Your task to perform on an android device: change timer sound Image 0: 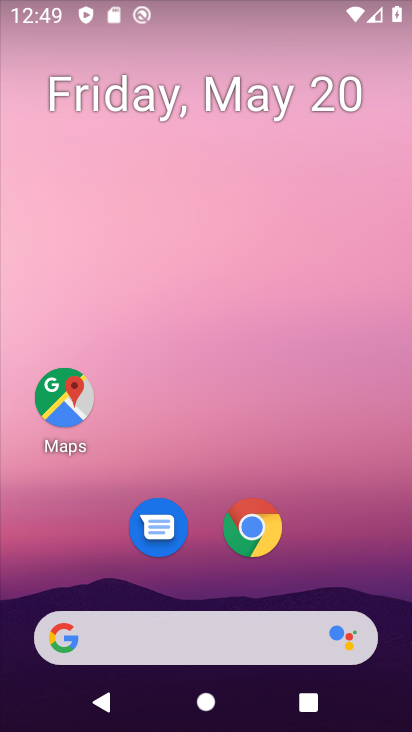
Step 0: drag from (213, 631) to (257, 214)
Your task to perform on an android device: change timer sound Image 1: 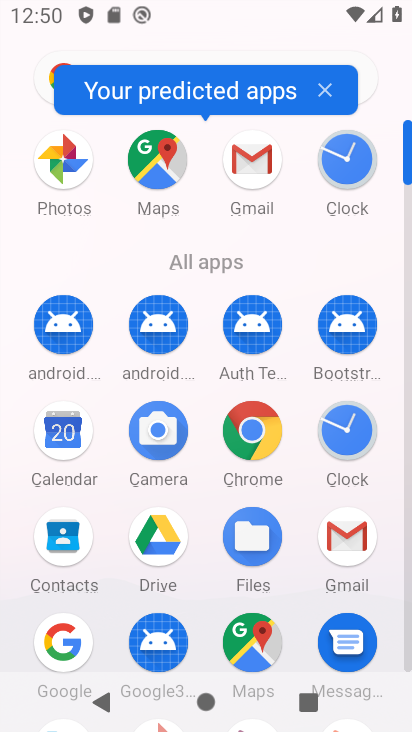
Step 1: click (343, 172)
Your task to perform on an android device: change timer sound Image 2: 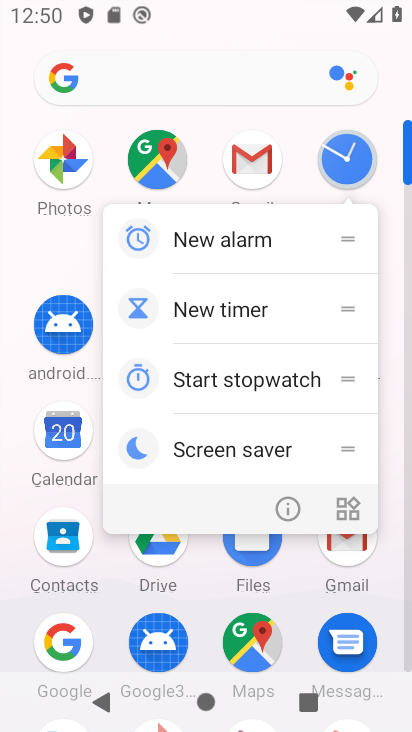
Step 2: click (348, 163)
Your task to perform on an android device: change timer sound Image 3: 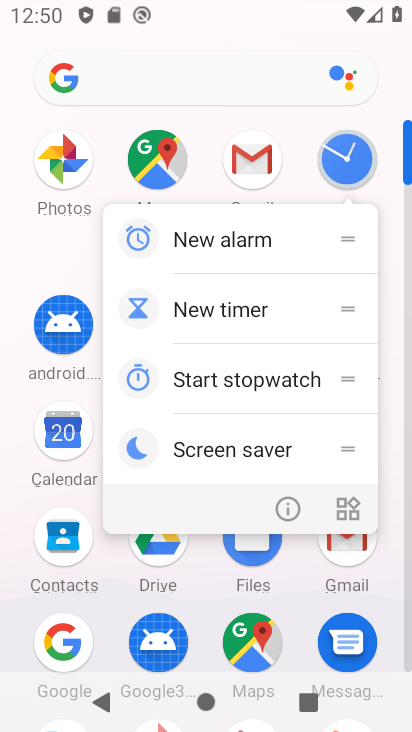
Step 3: click (343, 168)
Your task to perform on an android device: change timer sound Image 4: 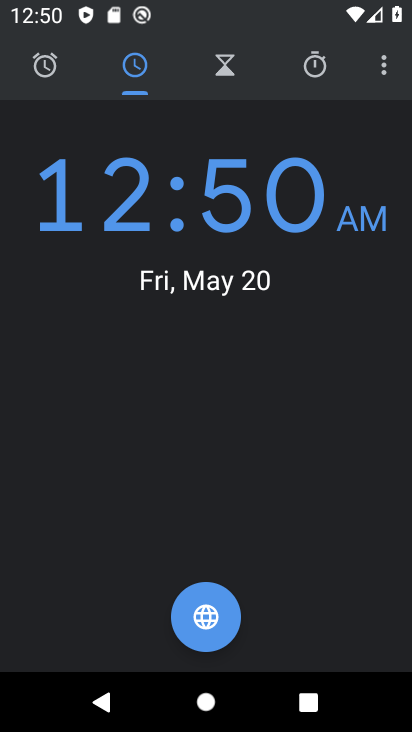
Step 4: click (382, 64)
Your task to perform on an android device: change timer sound Image 5: 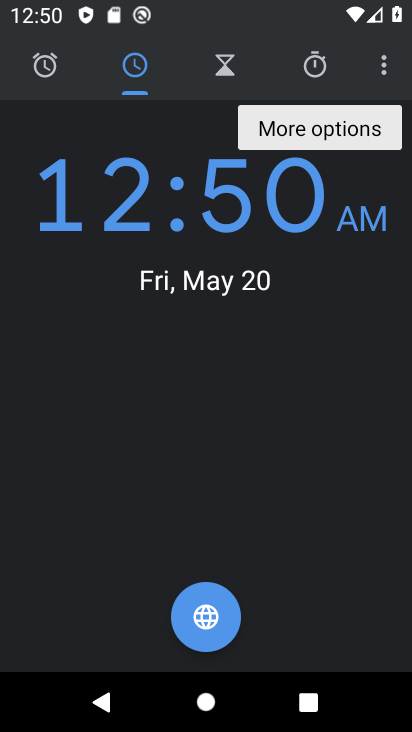
Step 5: click (383, 64)
Your task to perform on an android device: change timer sound Image 6: 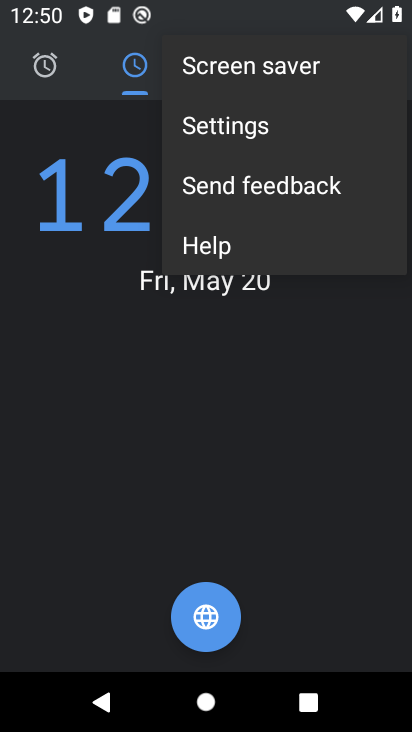
Step 6: click (234, 128)
Your task to perform on an android device: change timer sound Image 7: 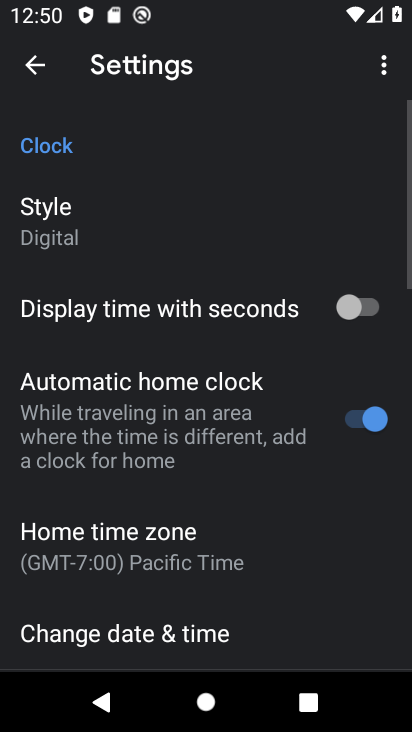
Step 7: drag from (154, 573) to (280, 81)
Your task to perform on an android device: change timer sound Image 8: 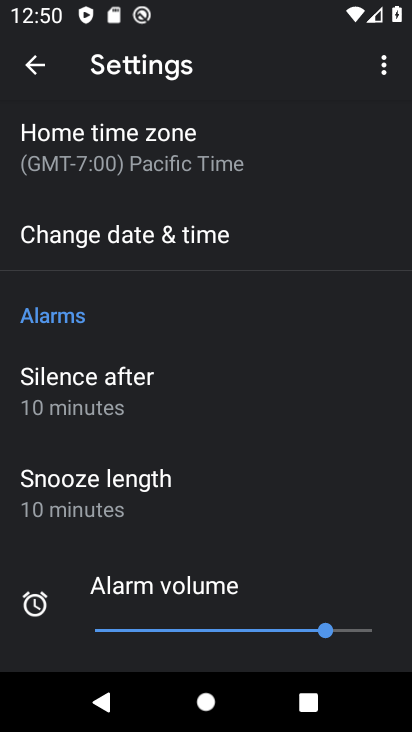
Step 8: drag from (189, 535) to (304, 113)
Your task to perform on an android device: change timer sound Image 9: 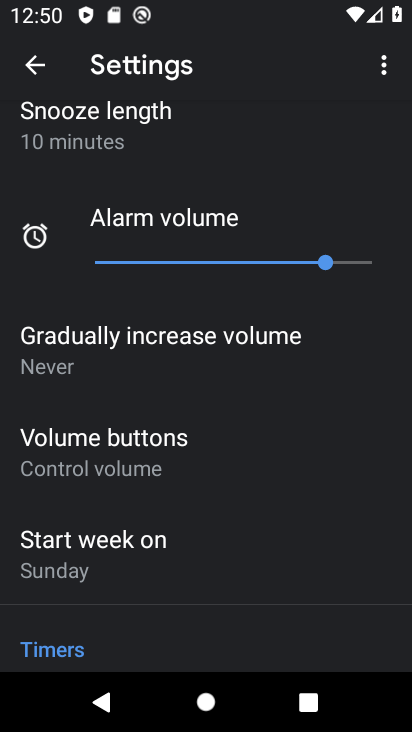
Step 9: drag from (254, 352) to (299, 121)
Your task to perform on an android device: change timer sound Image 10: 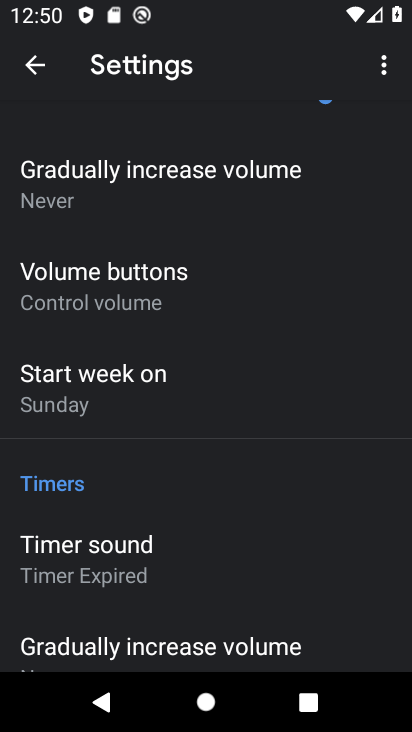
Step 10: click (101, 545)
Your task to perform on an android device: change timer sound Image 11: 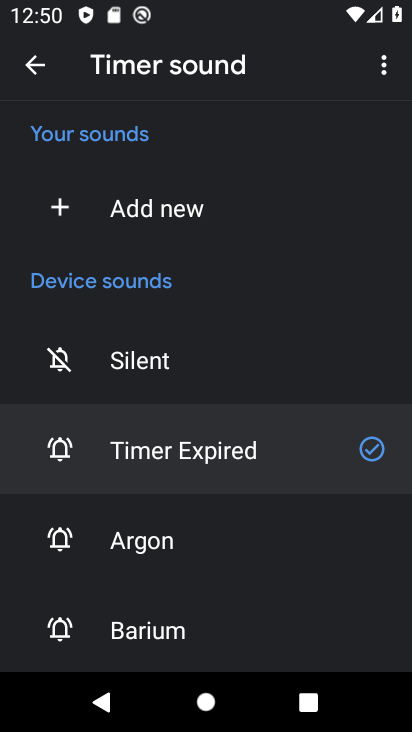
Step 11: click (151, 363)
Your task to perform on an android device: change timer sound Image 12: 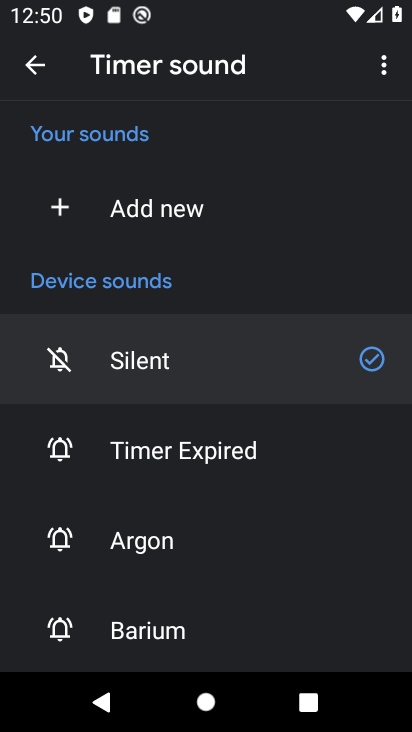
Step 12: task complete